Your task to perform on an android device: Search for a new blush Image 0: 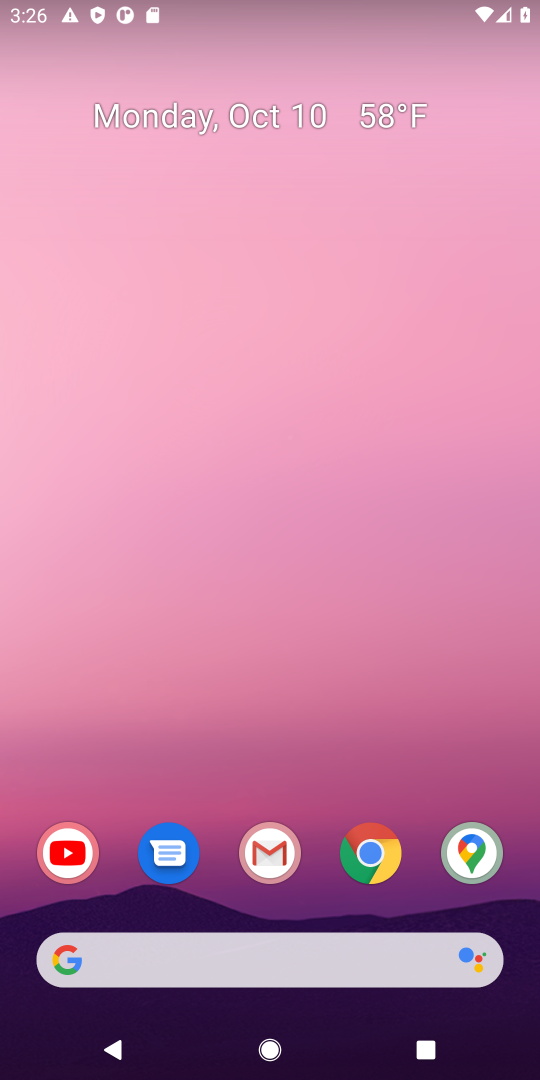
Step 0: click (326, 40)
Your task to perform on an android device: Search for a new blush Image 1: 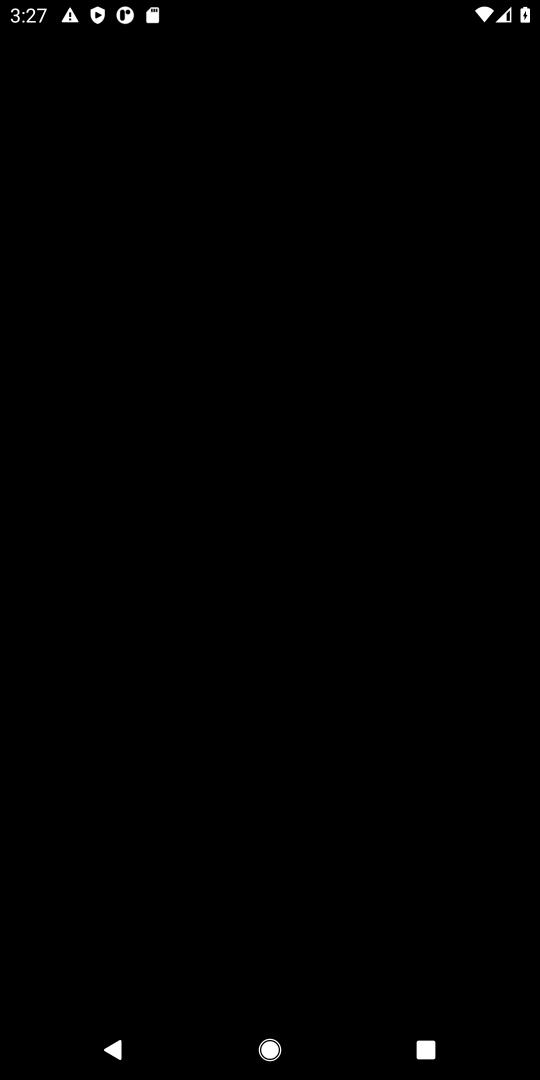
Step 1: press home button
Your task to perform on an android device: Search for a new blush Image 2: 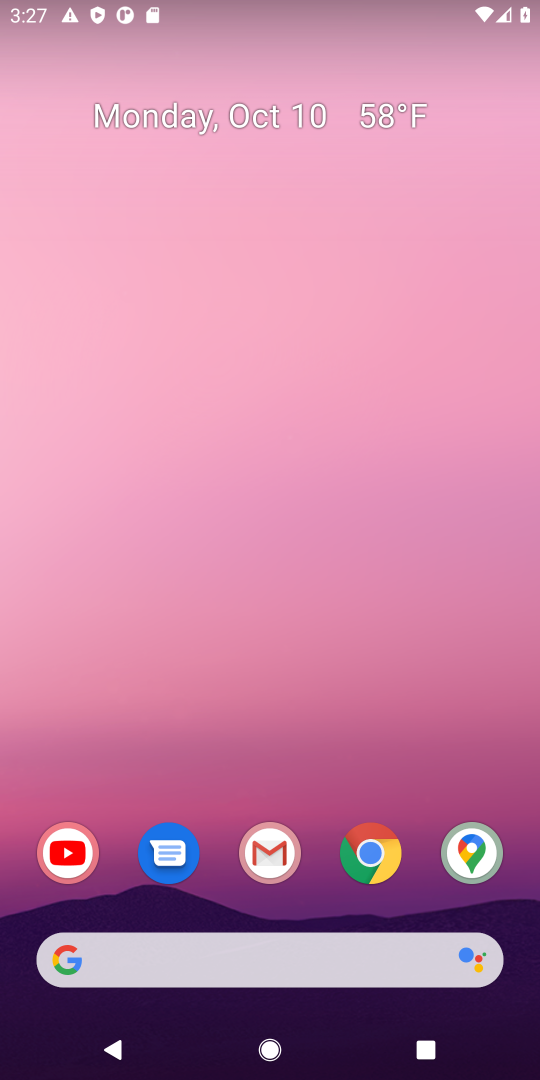
Step 2: click (199, 969)
Your task to perform on an android device: Search for a new blush Image 3: 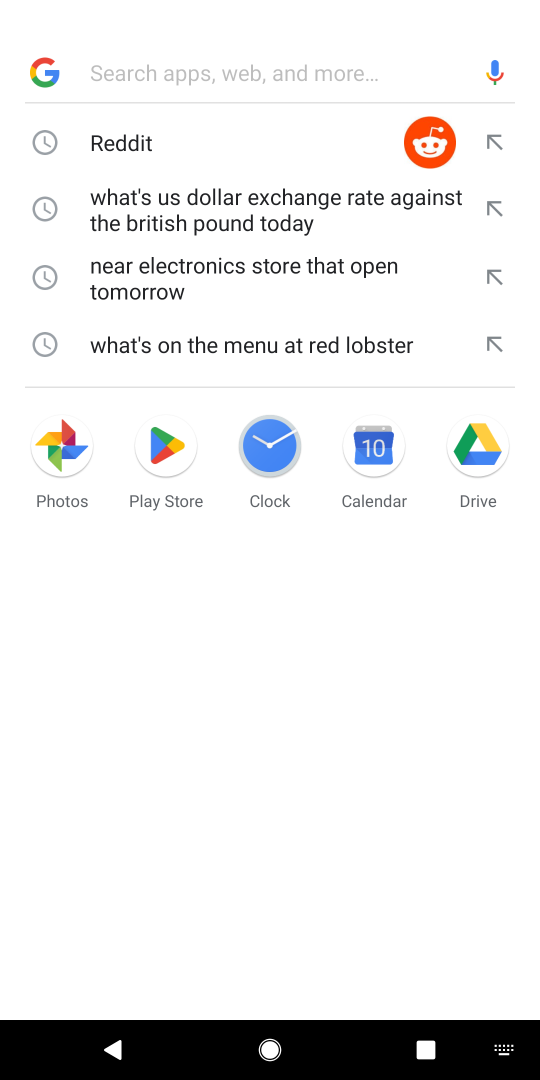
Step 3: click (128, 70)
Your task to perform on an android device: Search for a new blush Image 4: 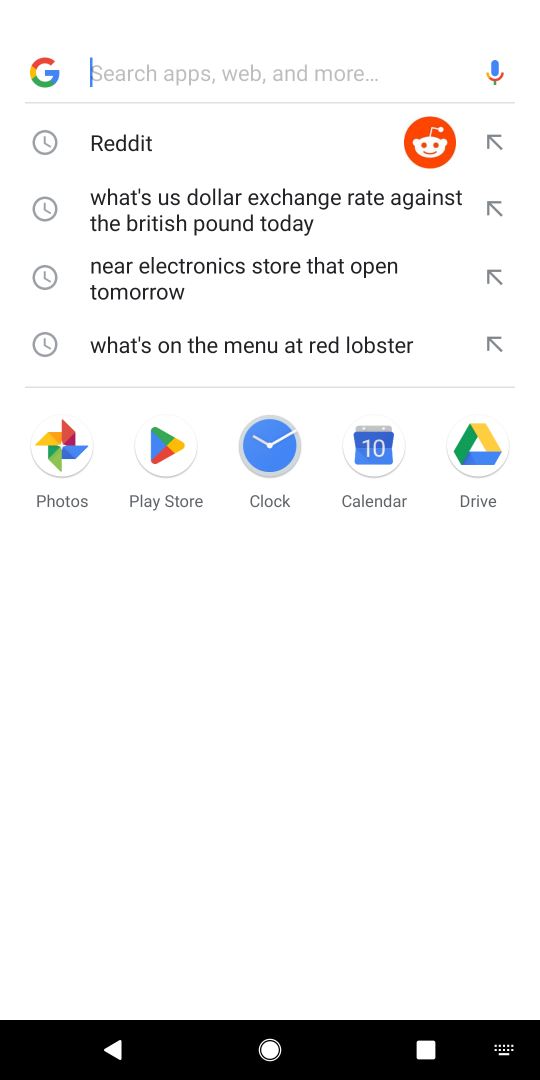
Step 4: type "new blush"
Your task to perform on an android device: Search for a new blush Image 5: 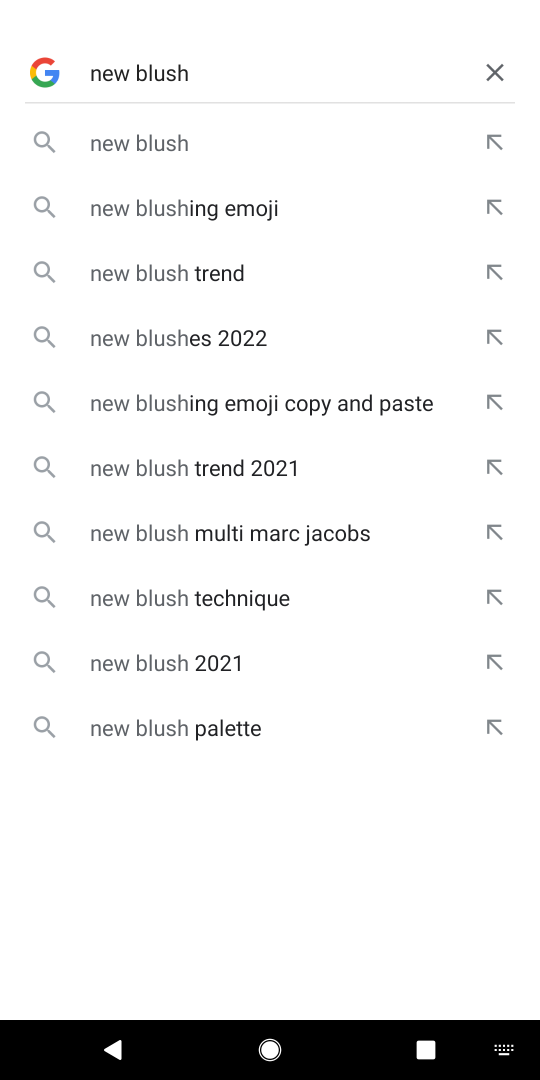
Step 5: click (183, 139)
Your task to perform on an android device: Search for a new blush Image 6: 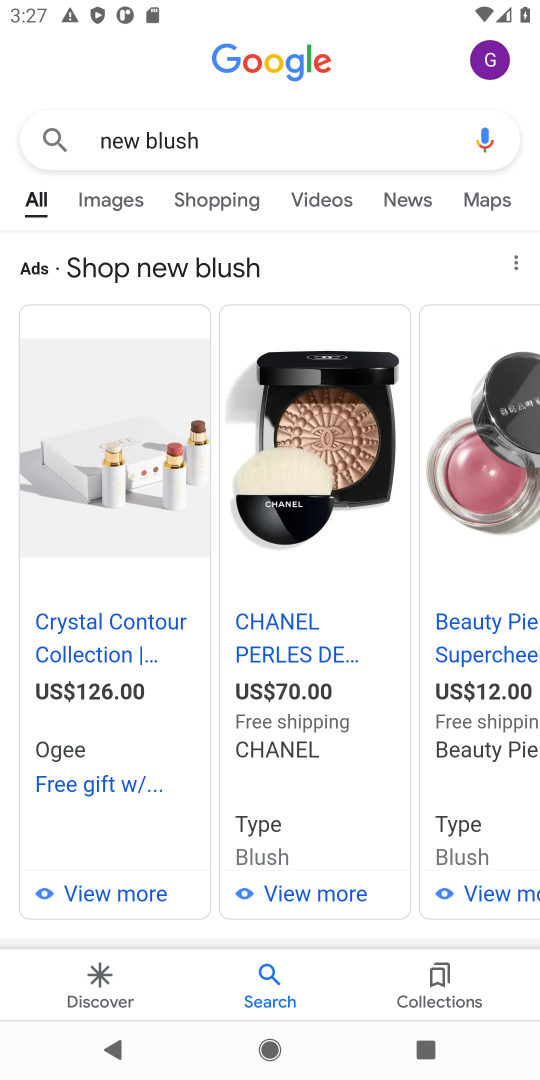
Step 6: task complete